Your task to perform on an android device: Open CNN.com Image 0: 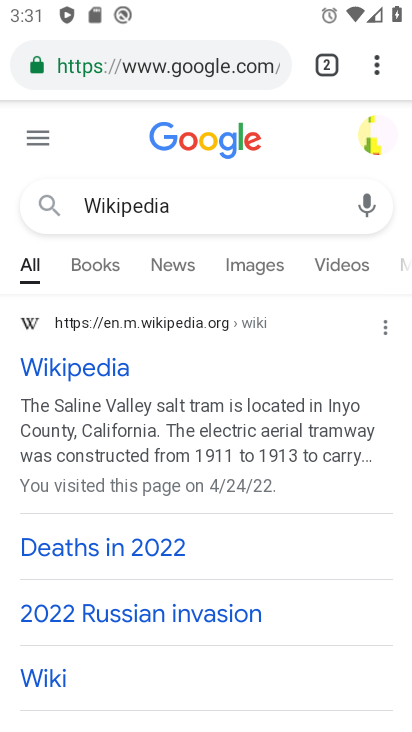
Step 0: click (279, 56)
Your task to perform on an android device: Open CNN.com Image 1: 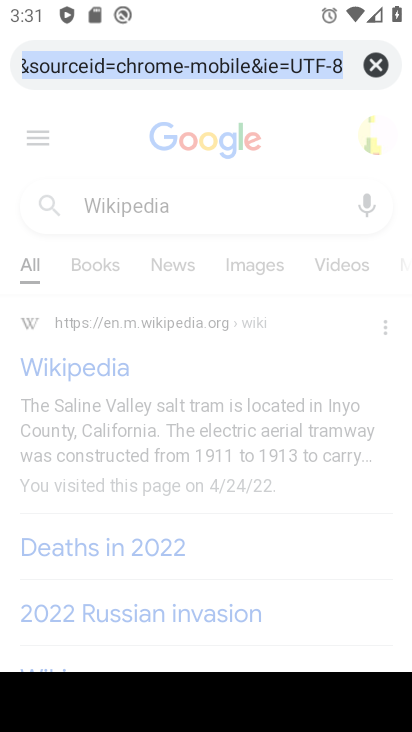
Step 1: click (362, 62)
Your task to perform on an android device: Open CNN.com Image 2: 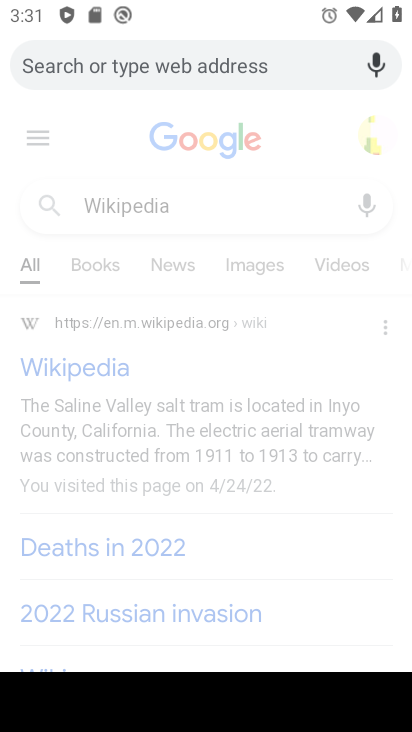
Step 2: type "CNN.com"
Your task to perform on an android device: Open CNN.com Image 3: 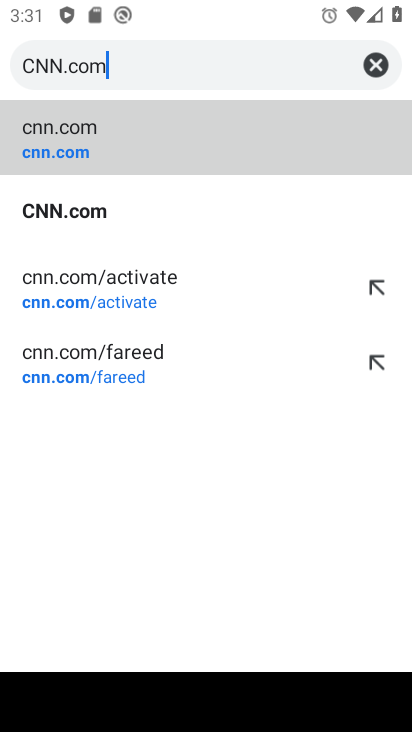
Step 3: click (36, 213)
Your task to perform on an android device: Open CNN.com Image 4: 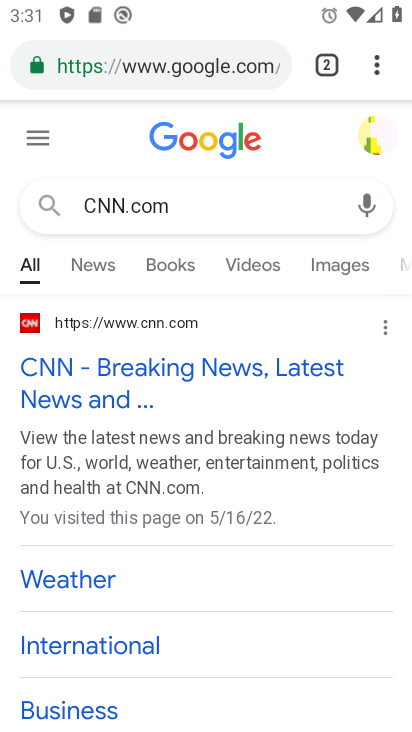
Step 4: task complete